Your task to perform on an android device: open app "Messenger Lite" (install if not already installed) and enter user name: "cataclysmic@outlook.com" and password: "victoriously" Image 0: 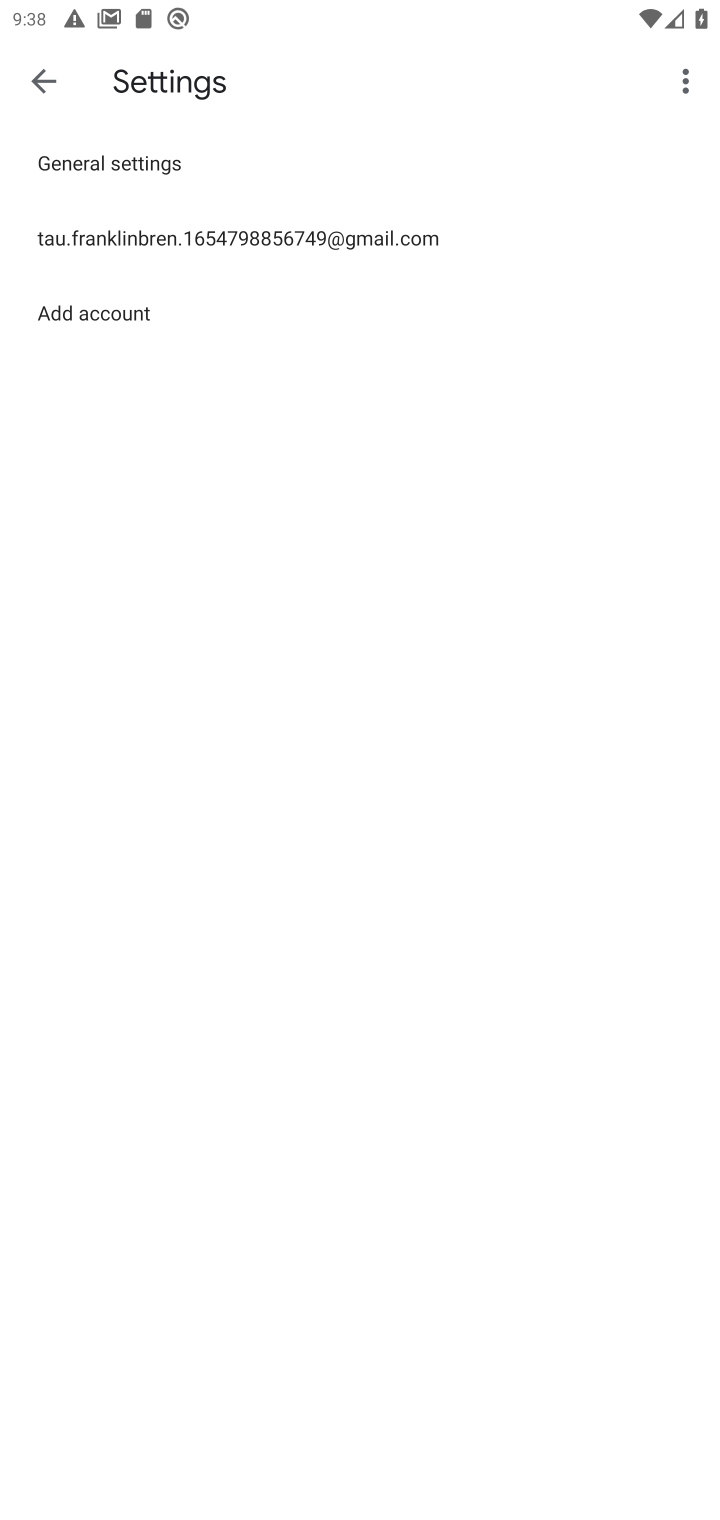
Step 0: press home button
Your task to perform on an android device: open app "Messenger Lite" (install if not already installed) and enter user name: "cataclysmic@outlook.com" and password: "victoriously" Image 1: 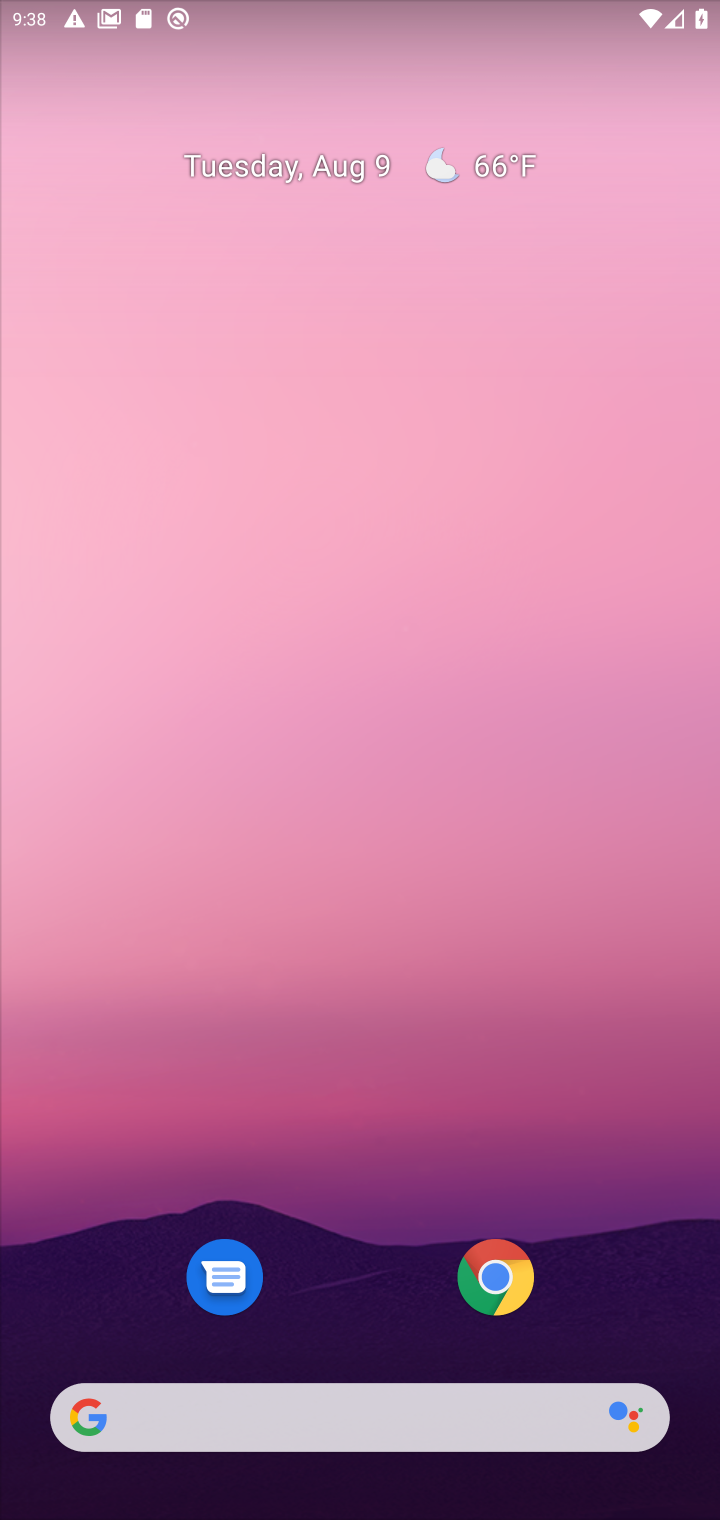
Step 1: drag from (324, 1339) to (154, 178)
Your task to perform on an android device: open app "Messenger Lite" (install if not already installed) and enter user name: "cataclysmic@outlook.com" and password: "victoriously" Image 2: 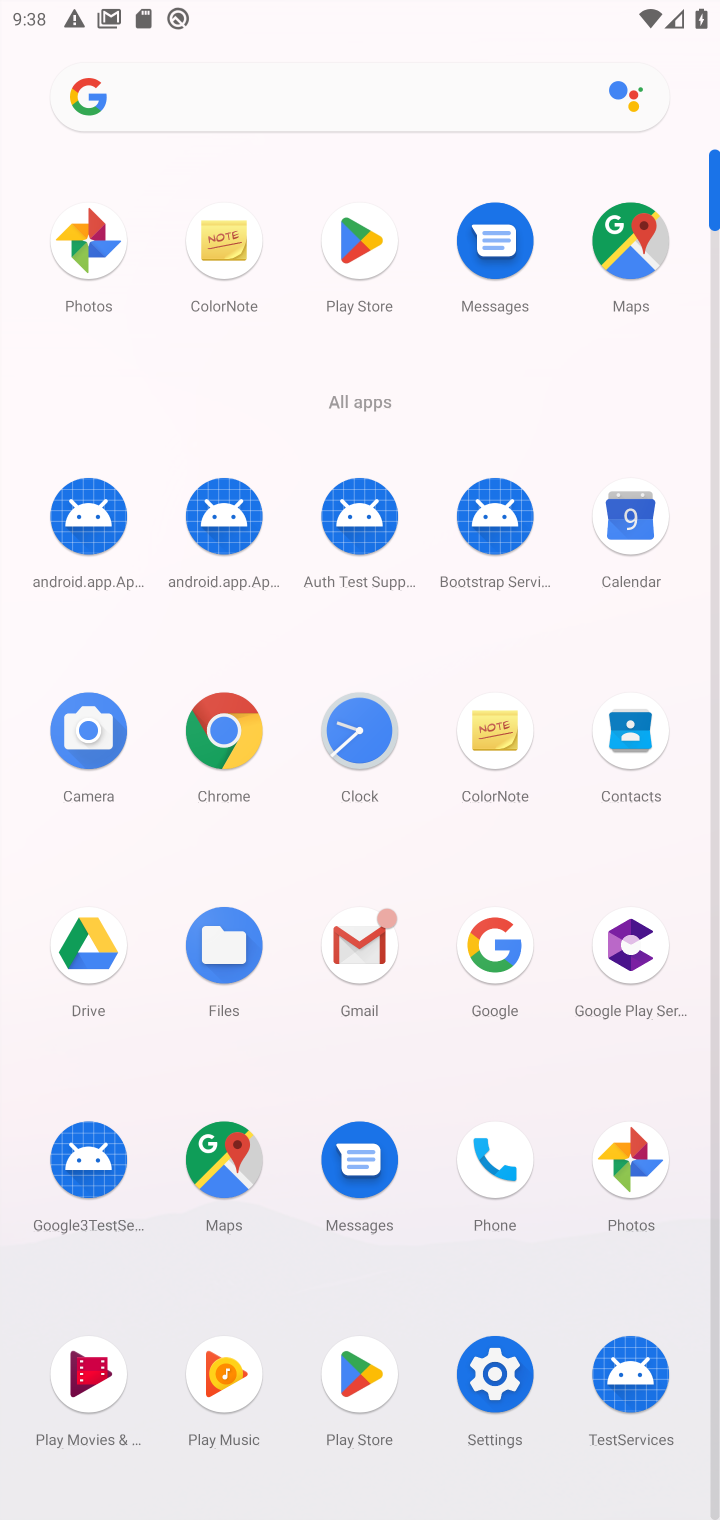
Step 2: click (355, 1366)
Your task to perform on an android device: open app "Messenger Lite" (install if not already installed) and enter user name: "cataclysmic@outlook.com" and password: "victoriously" Image 3: 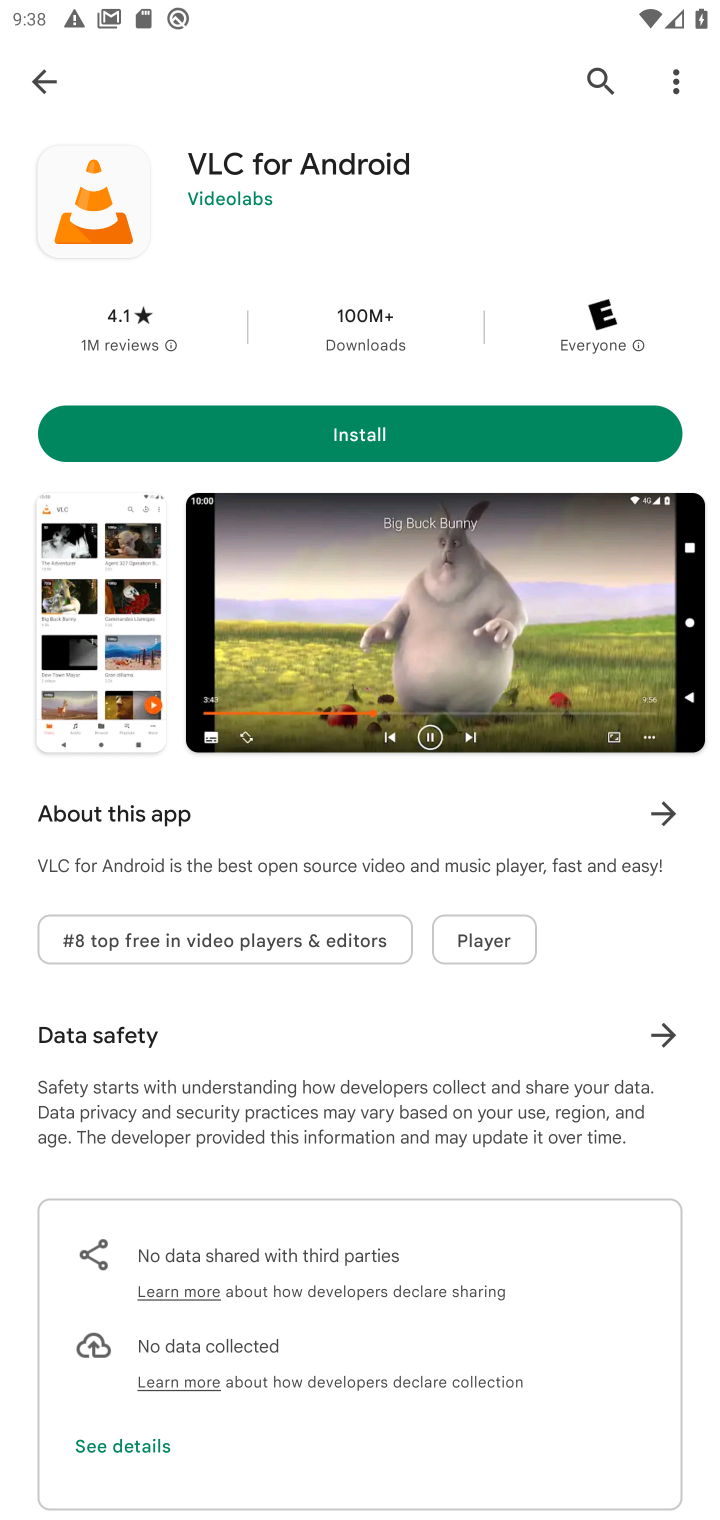
Step 3: click (50, 83)
Your task to perform on an android device: open app "Messenger Lite" (install if not already installed) and enter user name: "cataclysmic@outlook.com" and password: "victoriously" Image 4: 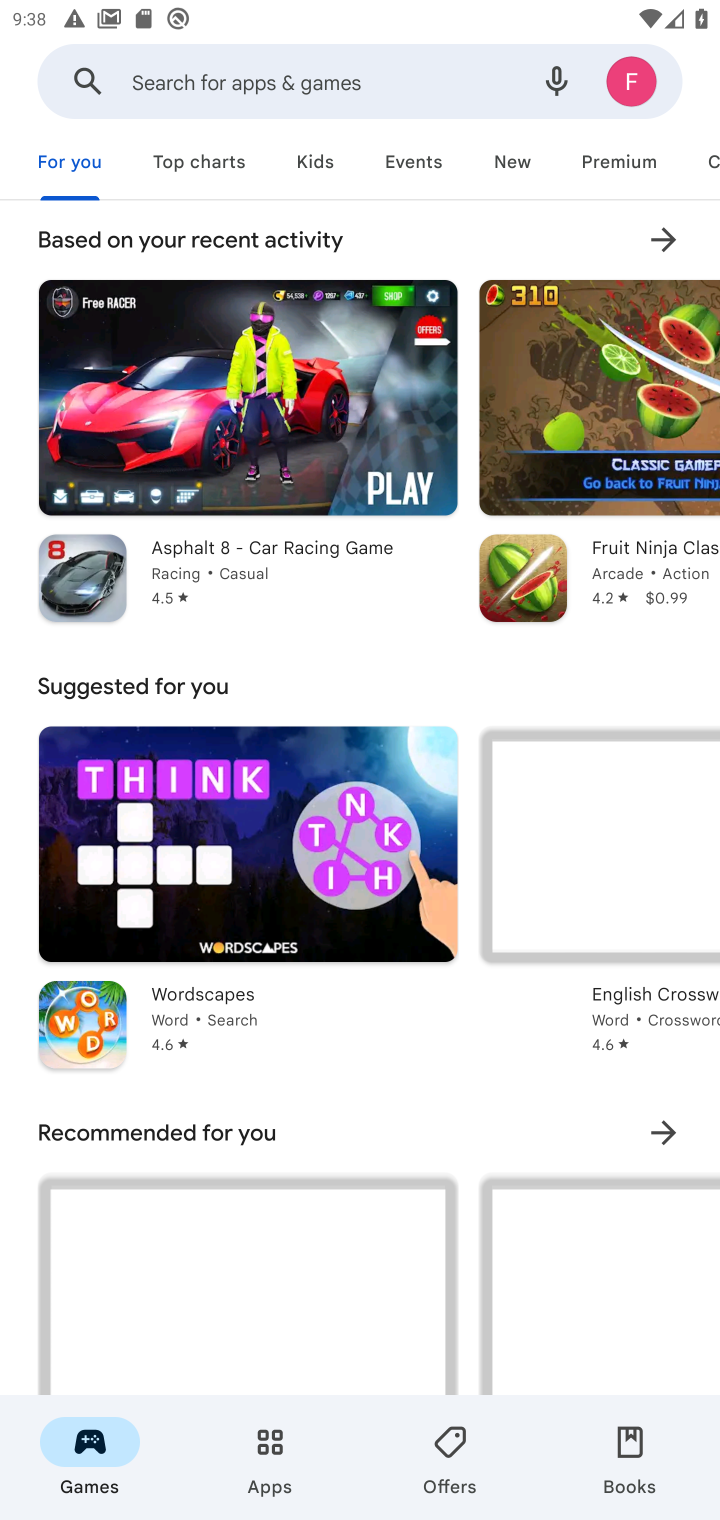
Step 4: click (148, 97)
Your task to perform on an android device: open app "Messenger Lite" (install if not already installed) and enter user name: "cataclysmic@outlook.com" and password: "victoriously" Image 5: 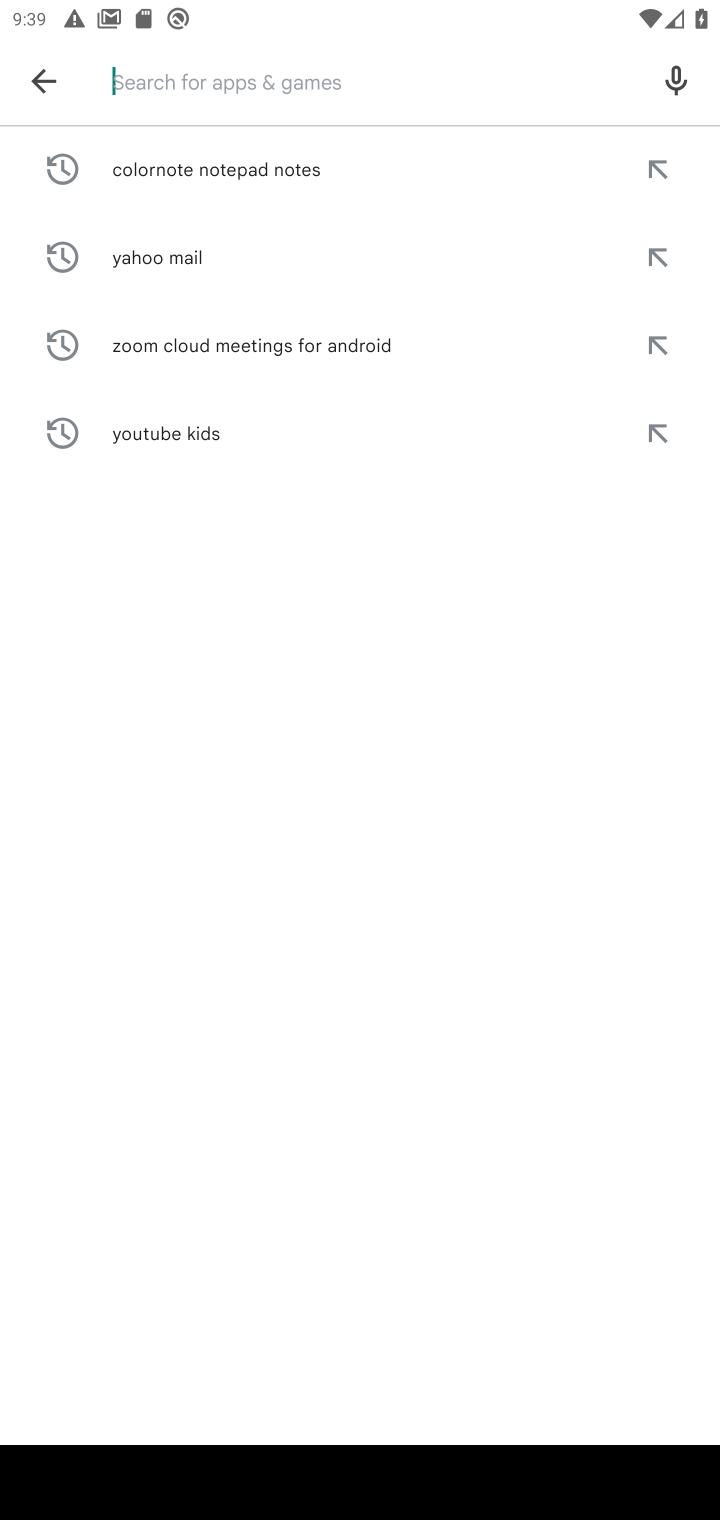
Step 5: type "Messenger Lite"
Your task to perform on an android device: open app "Messenger Lite" (install if not already installed) and enter user name: "cataclysmic@outlook.com" and password: "victoriously" Image 6: 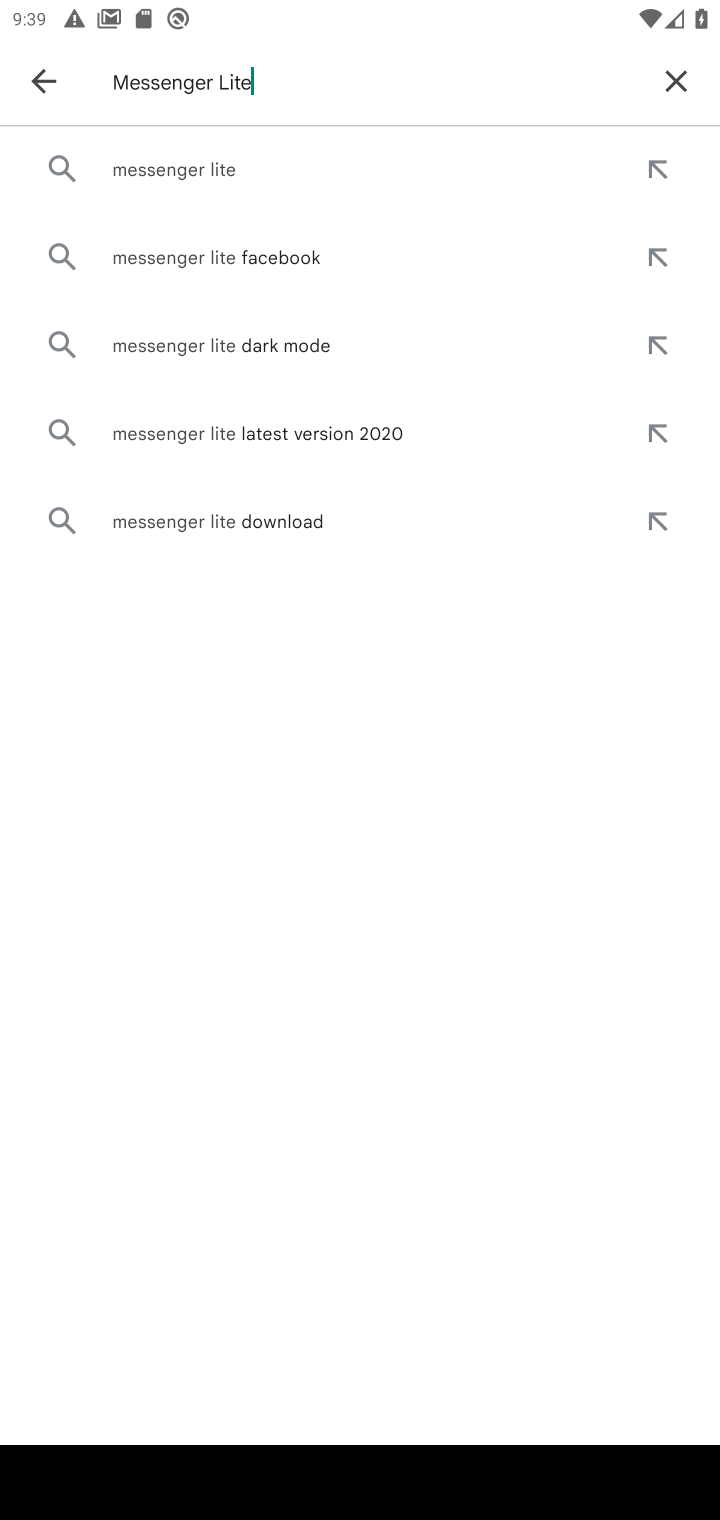
Step 6: click (202, 163)
Your task to perform on an android device: open app "Messenger Lite" (install if not already installed) and enter user name: "cataclysmic@outlook.com" and password: "victoriously" Image 7: 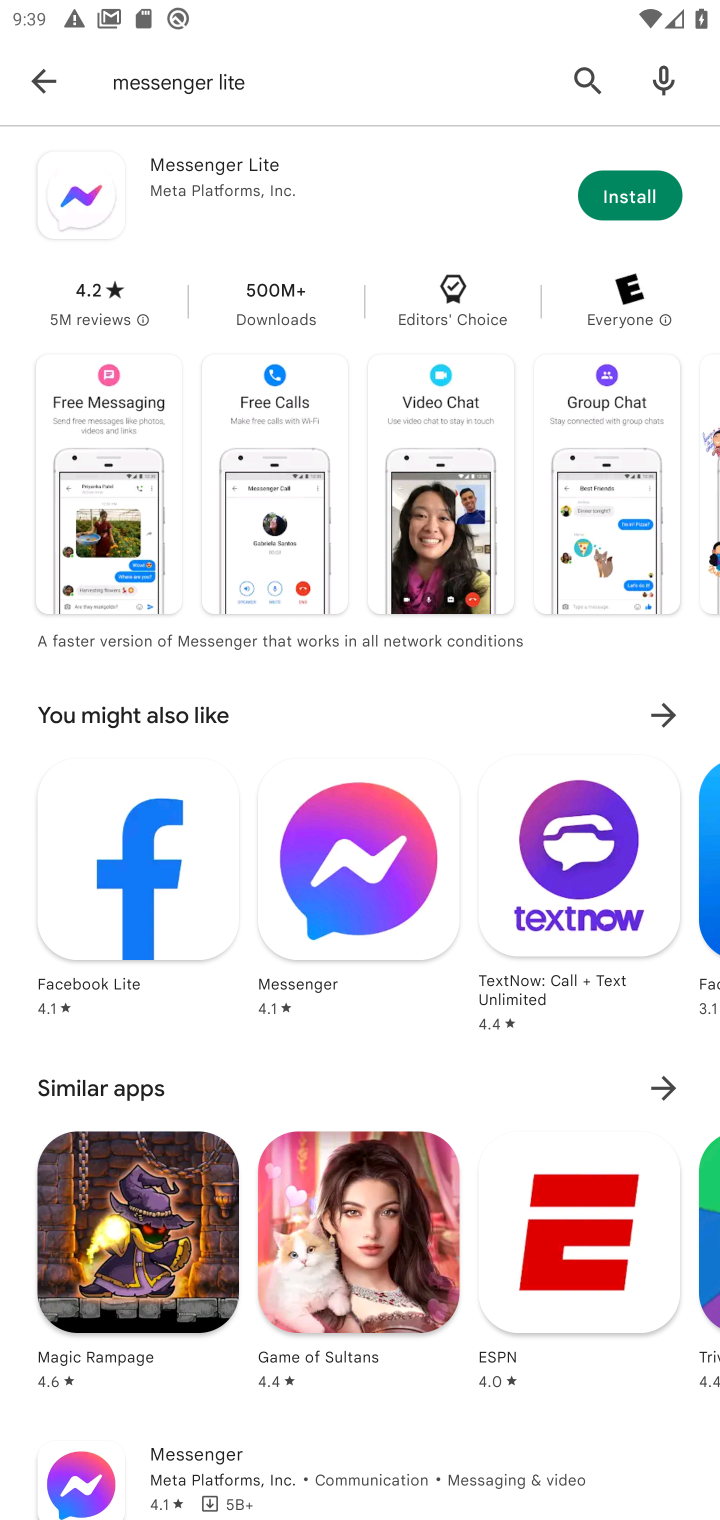
Step 7: click (665, 190)
Your task to perform on an android device: open app "Messenger Lite" (install if not already installed) and enter user name: "cataclysmic@outlook.com" and password: "victoriously" Image 8: 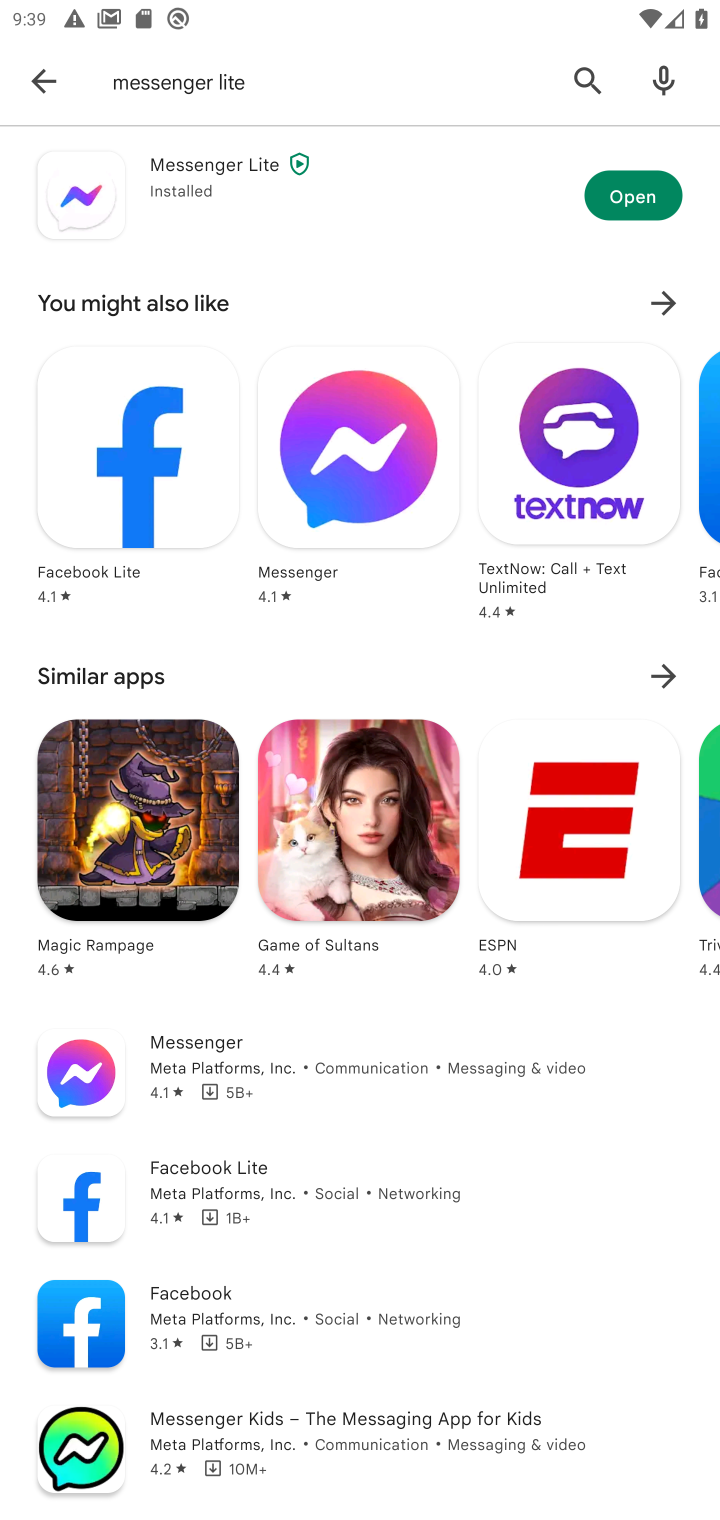
Step 8: click (664, 183)
Your task to perform on an android device: open app "Messenger Lite" (install if not already installed) and enter user name: "cataclysmic@outlook.com" and password: "victoriously" Image 9: 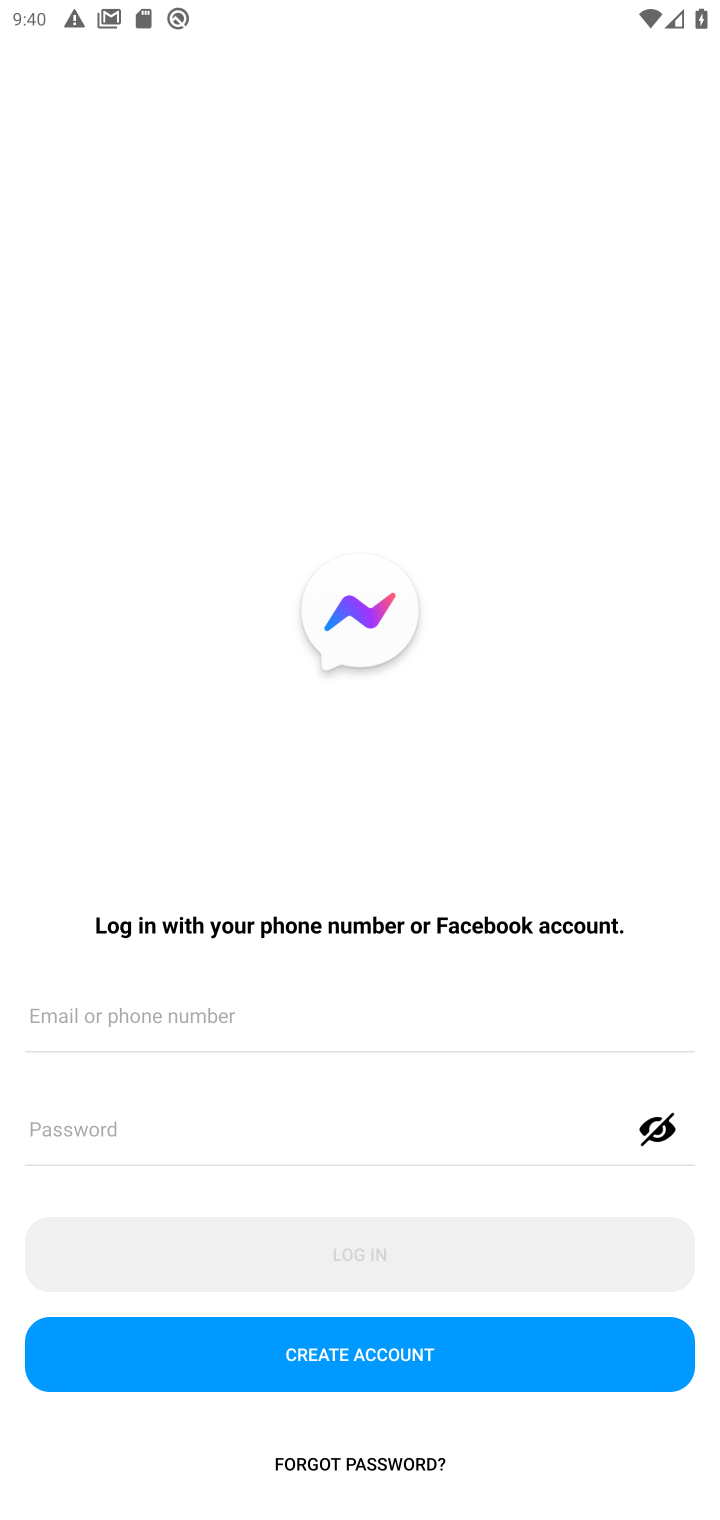
Step 9: click (65, 1022)
Your task to perform on an android device: open app "Messenger Lite" (install if not already installed) and enter user name: "cataclysmic@outlook.com" and password: "victoriously" Image 10: 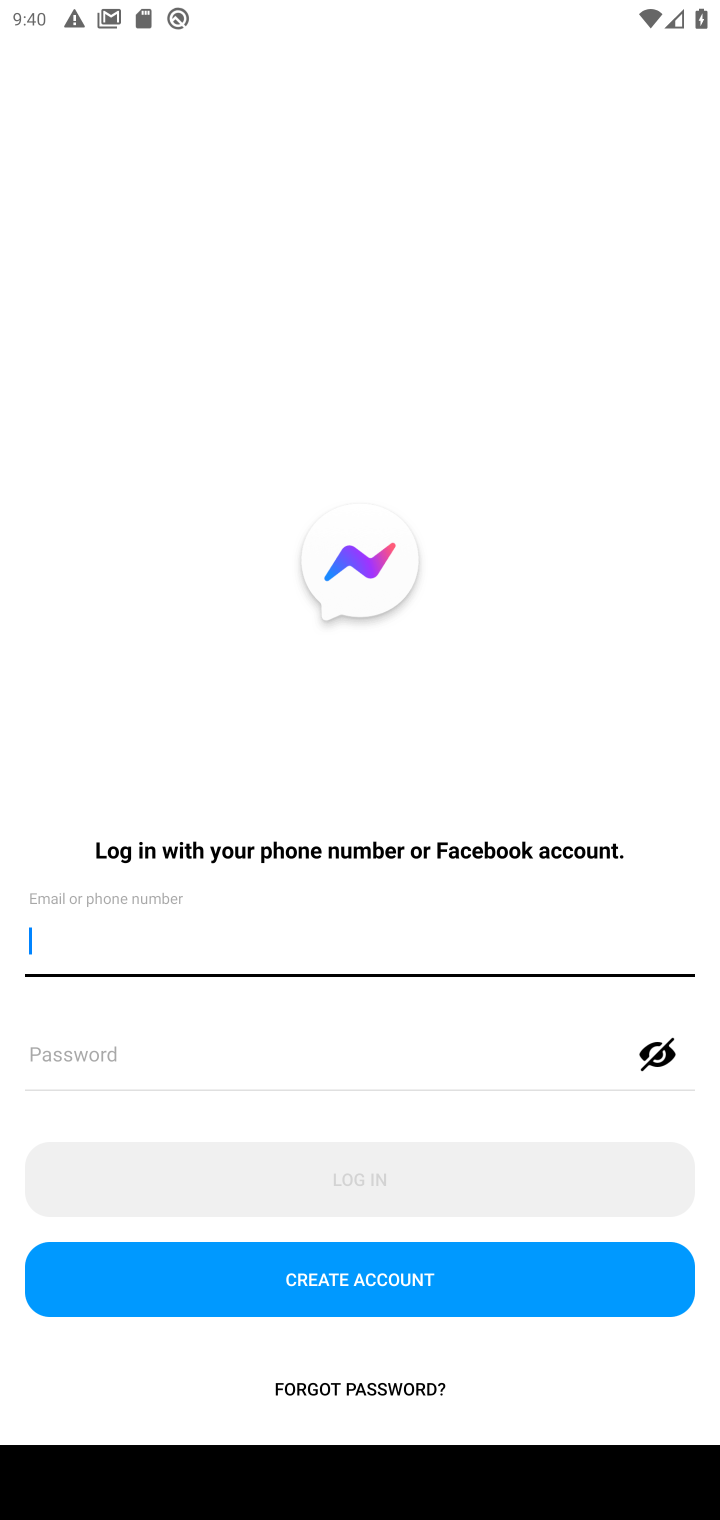
Step 10: type "cataclysmic@outlook.com"
Your task to perform on an android device: open app "Messenger Lite" (install if not already installed) and enter user name: "cataclysmic@outlook.com" and password: "victoriously" Image 11: 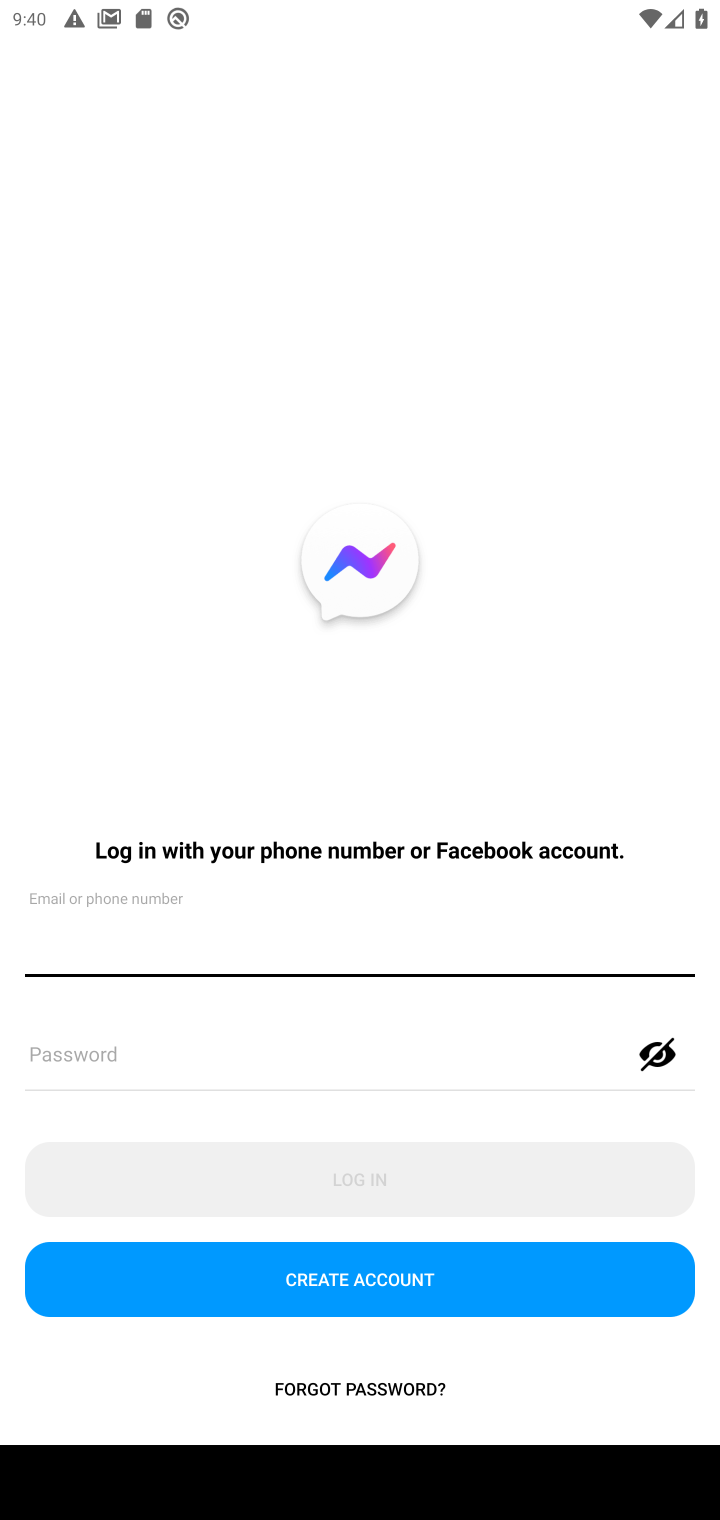
Step 11: click (141, 1035)
Your task to perform on an android device: open app "Messenger Lite" (install if not already installed) and enter user name: "cataclysmic@outlook.com" and password: "victoriously" Image 12: 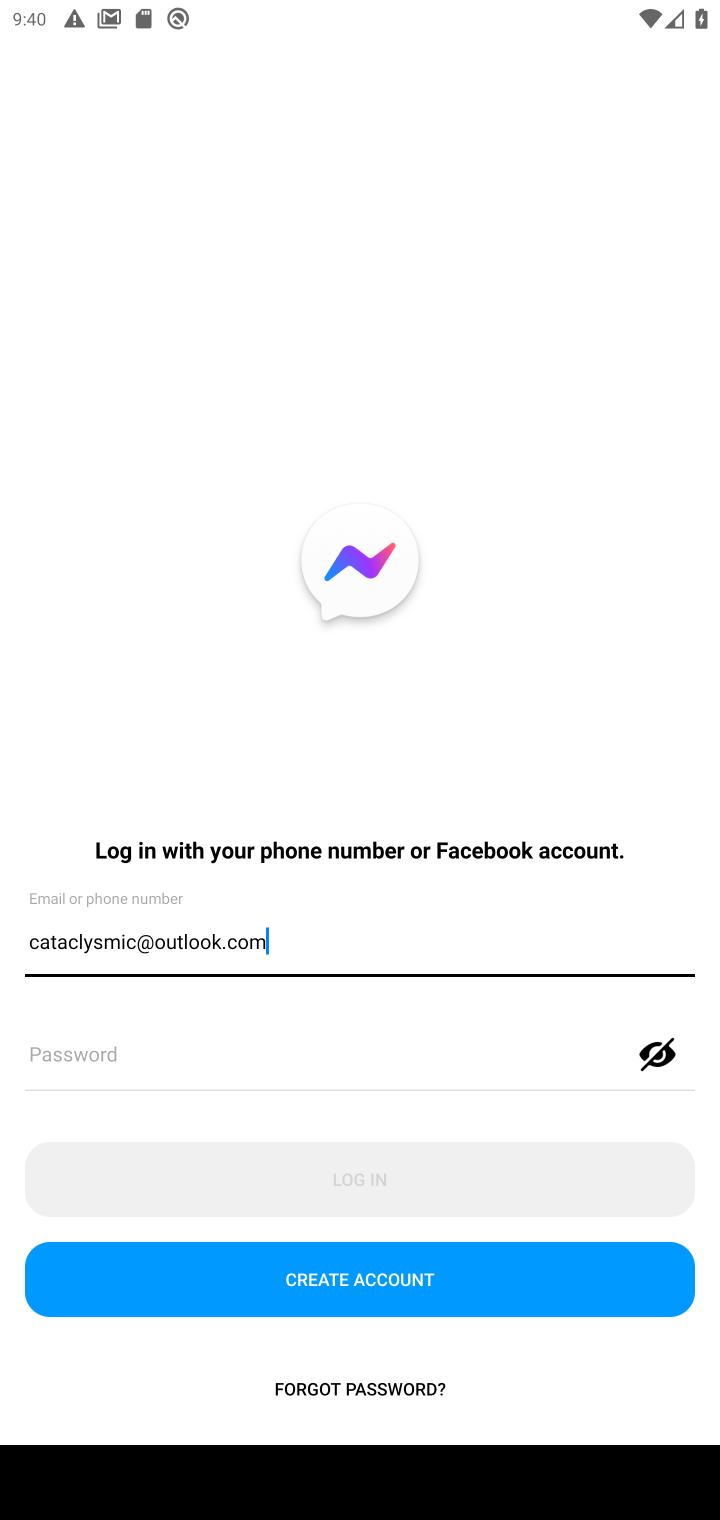
Step 12: type ""
Your task to perform on an android device: open app "Messenger Lite" (install if not already installed) and enter user name: "cataclysmic@outlook.com" and password: "victoriously" Image 13: 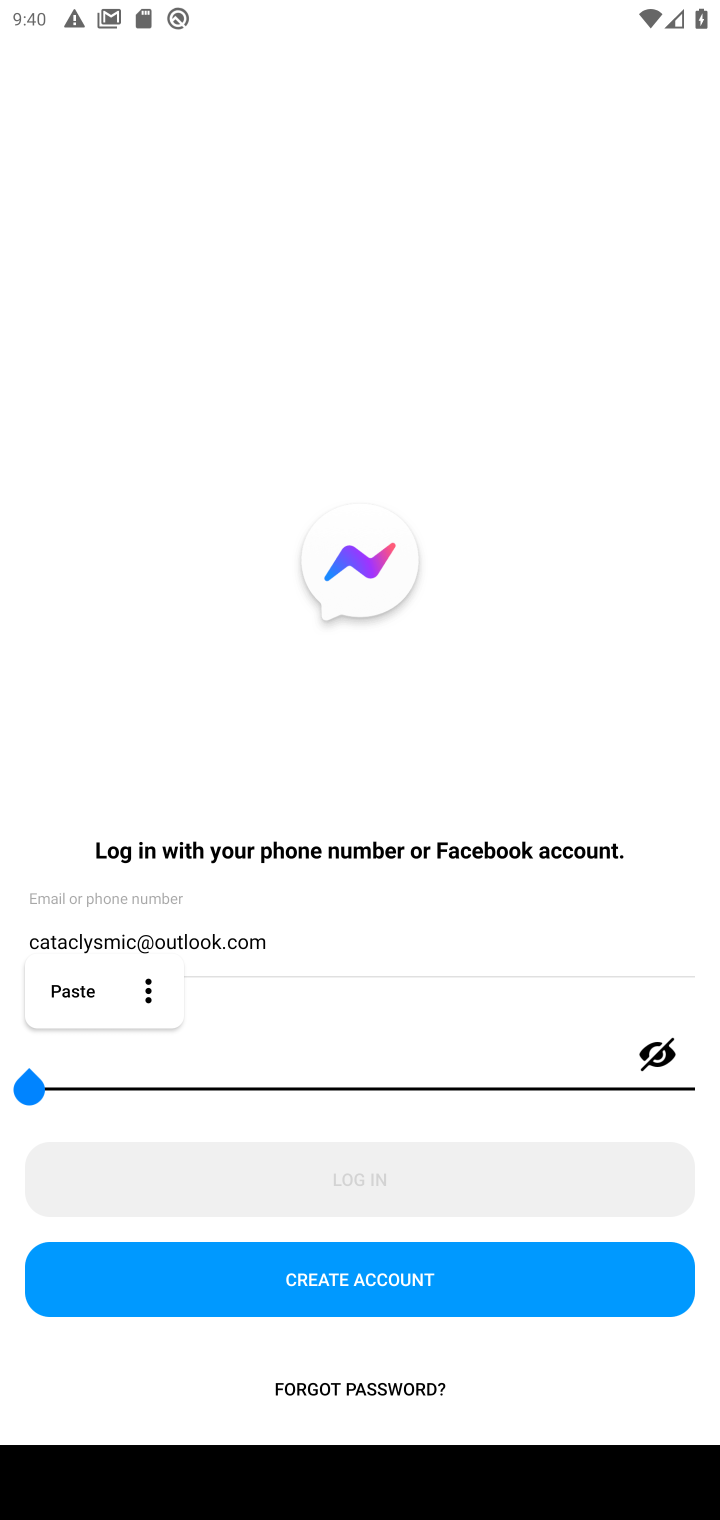
Step 13: type "victoriously"
Your task to perform on an android device: open app "Messenger Lite" (install if not already installed) and enter user name: "cataclysmic@outlook.com" and password: "victoriously" Image 14: 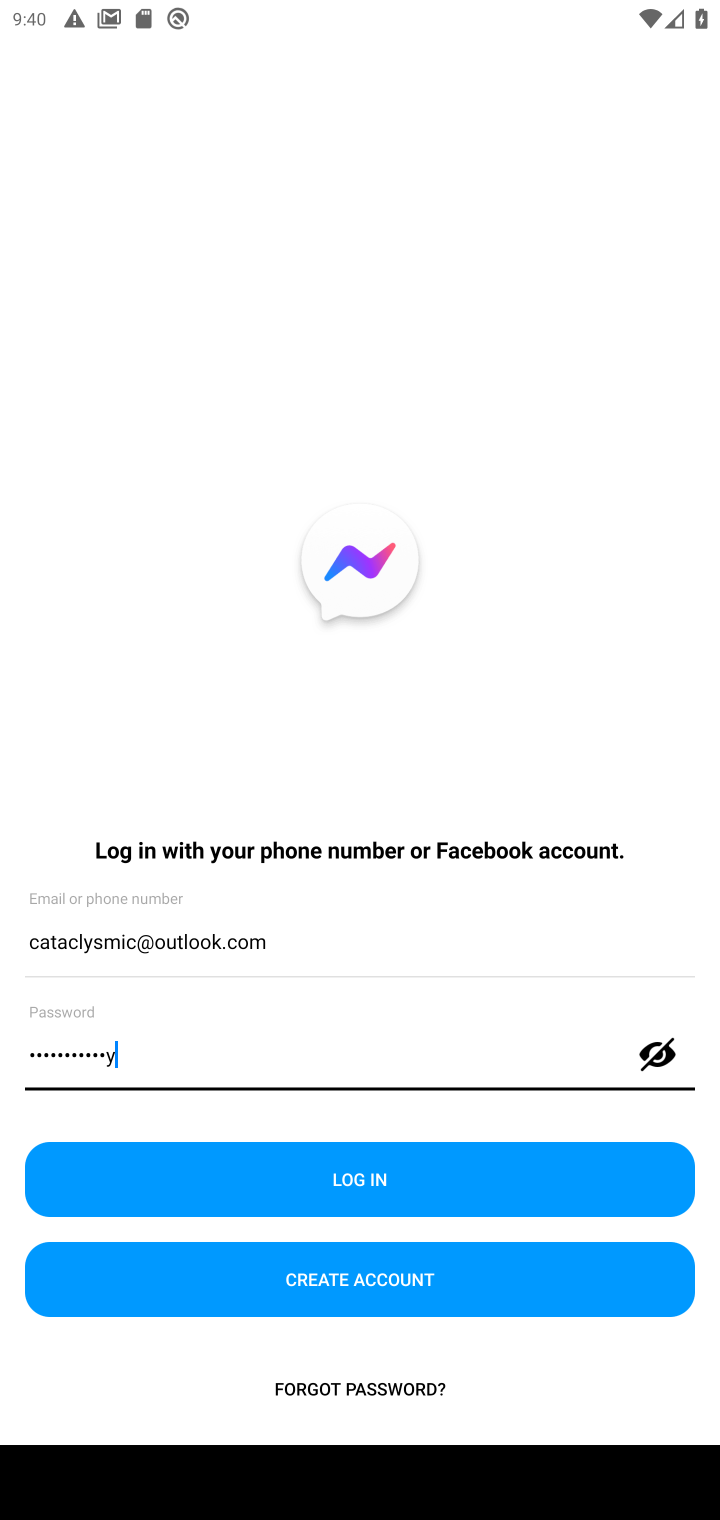
Step 14: type ""
Your task to perform on an android device: open app "Messenger Lite" (install if not already installed) and enter user name: "cataclysmic@outlook.com" and password: "victoriously" Image 15: 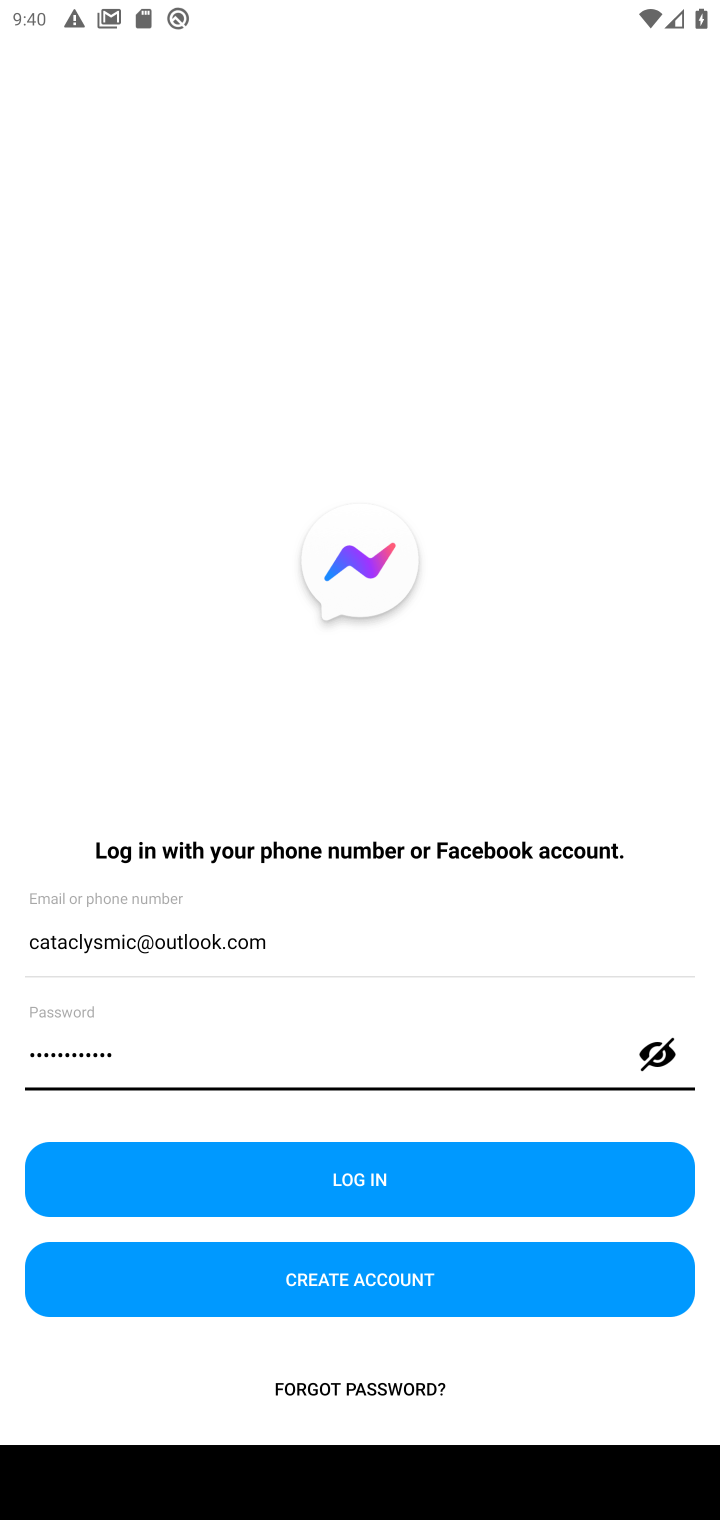
Step 15: task complete